Your task to perform on an android device: change text size in settings app Image 0: 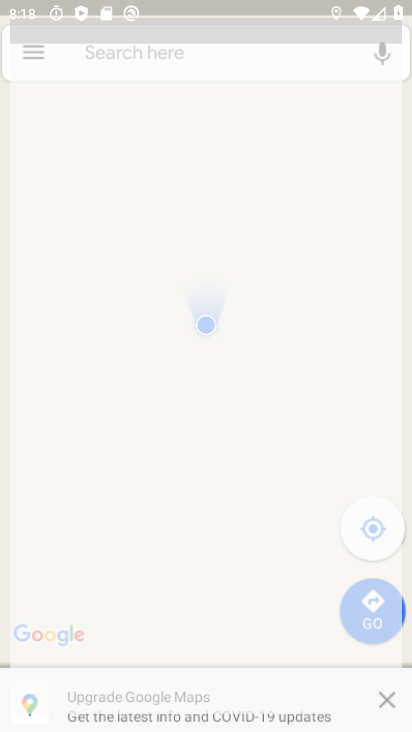
Step 0: press home button
Your task to perform on an android device: change text size in settings app Image 1: 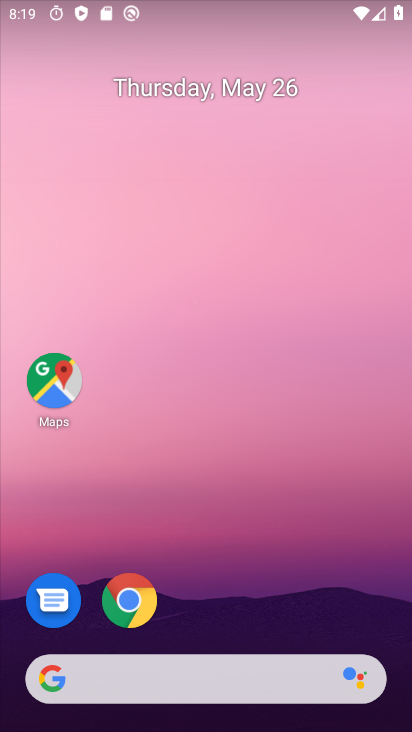
Step 1: drag from (232, 599) to (261, 194)
Your task to perform on an android device: change text size in settings app Image 2: 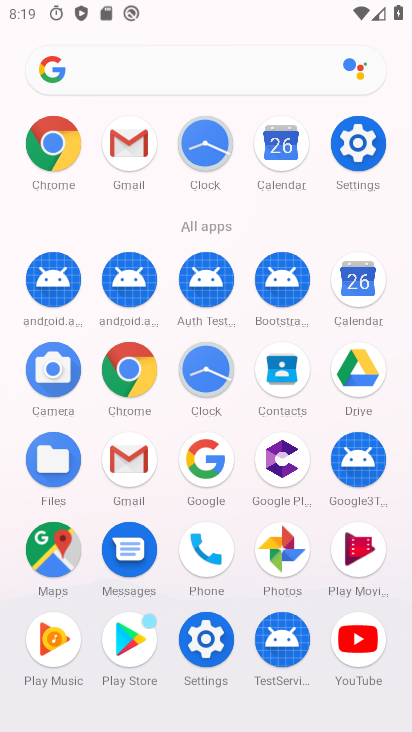
Step 2: click (359, 139)
Your task to perform on an android device: change text size in settings app Image 3: 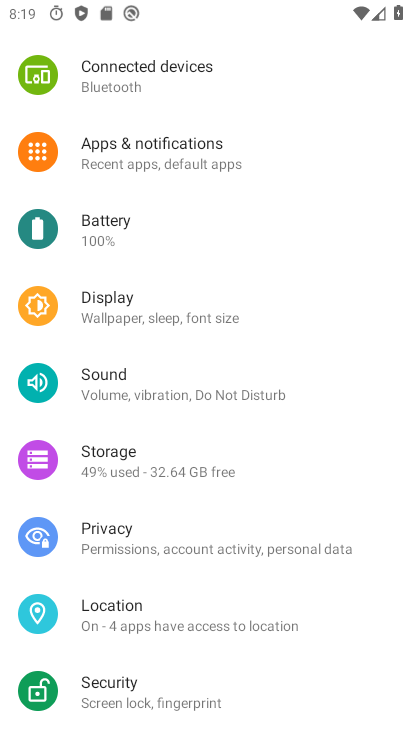
Step 3: click (186, 313)
Your task to perform on an android device: change text size in settings app Image 4: 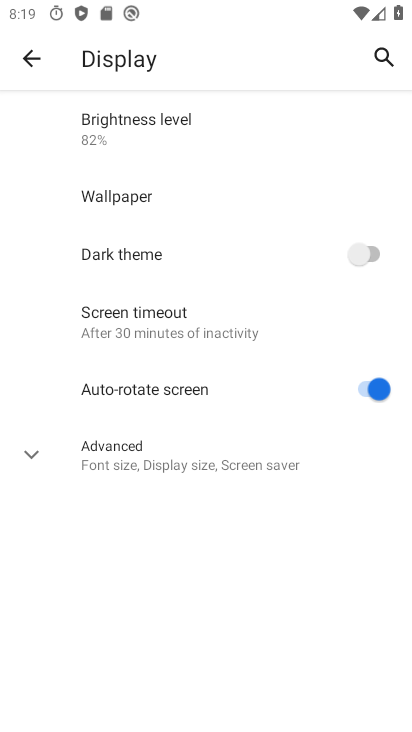
Step 4: click (149, 470)
Your task to perform on an android device: change text size in settings app Image 5: 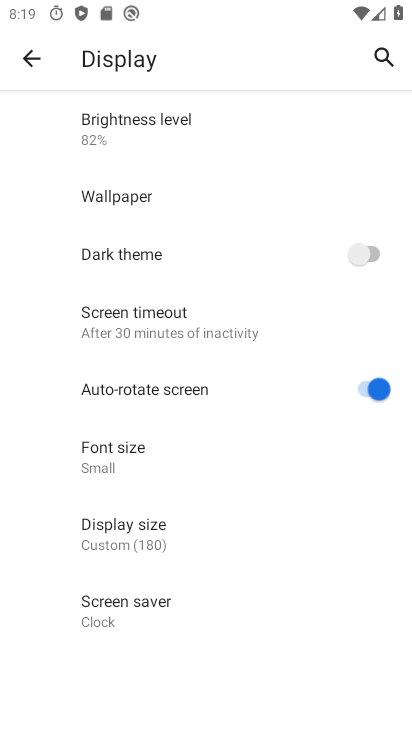
Step 5: click (123, 462)
Your task to perform on an android device: change text size in settings app Image 6: 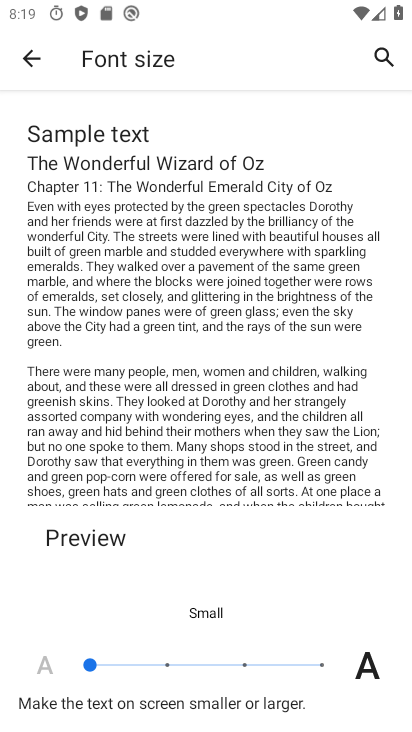
Step 6: task complete